Your task to perform on an android device: Search for "amazon basics triple a" on target.com, select the first entry, and add it to the cart. Image 0: 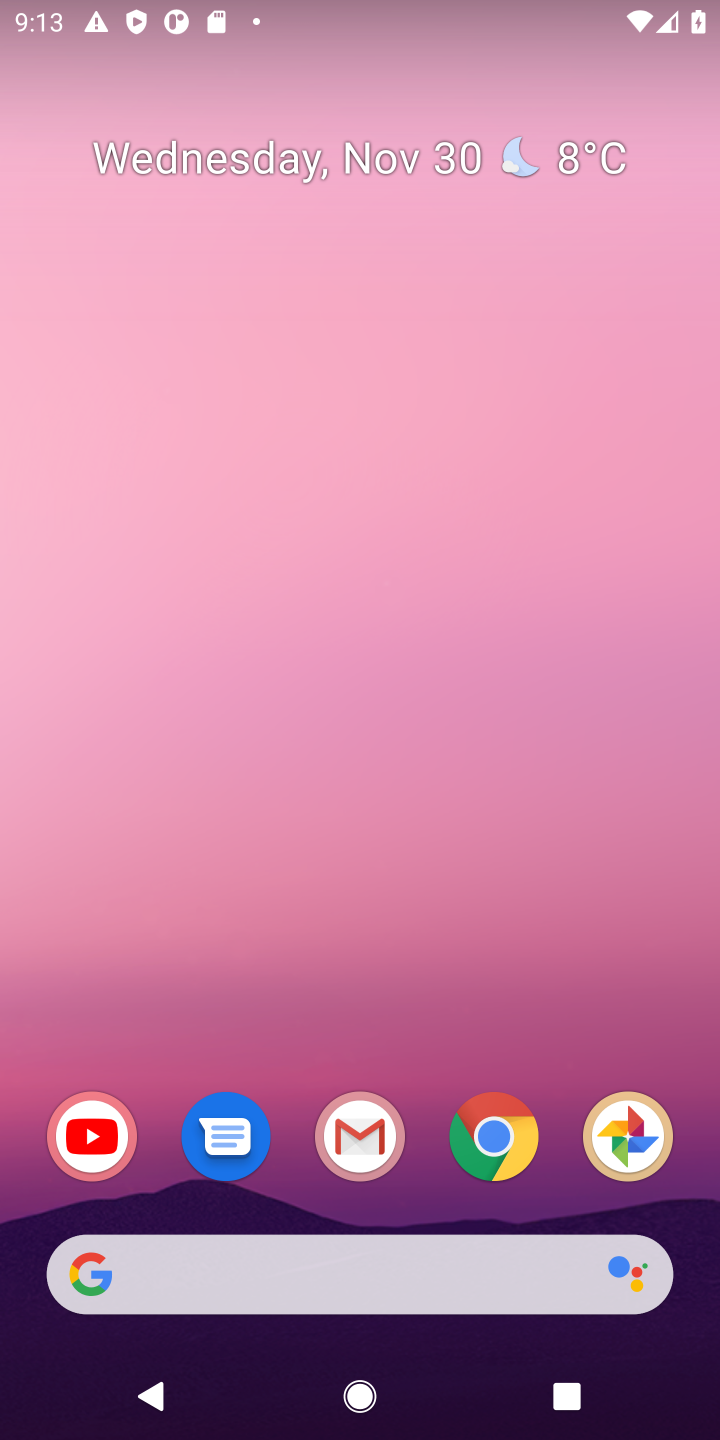
Step 0: click (501, 1143)
Your task to perform on an android device: Search for "amazon basics triple a" on target.com, select the first entry, and add it to the cart. Image 1: 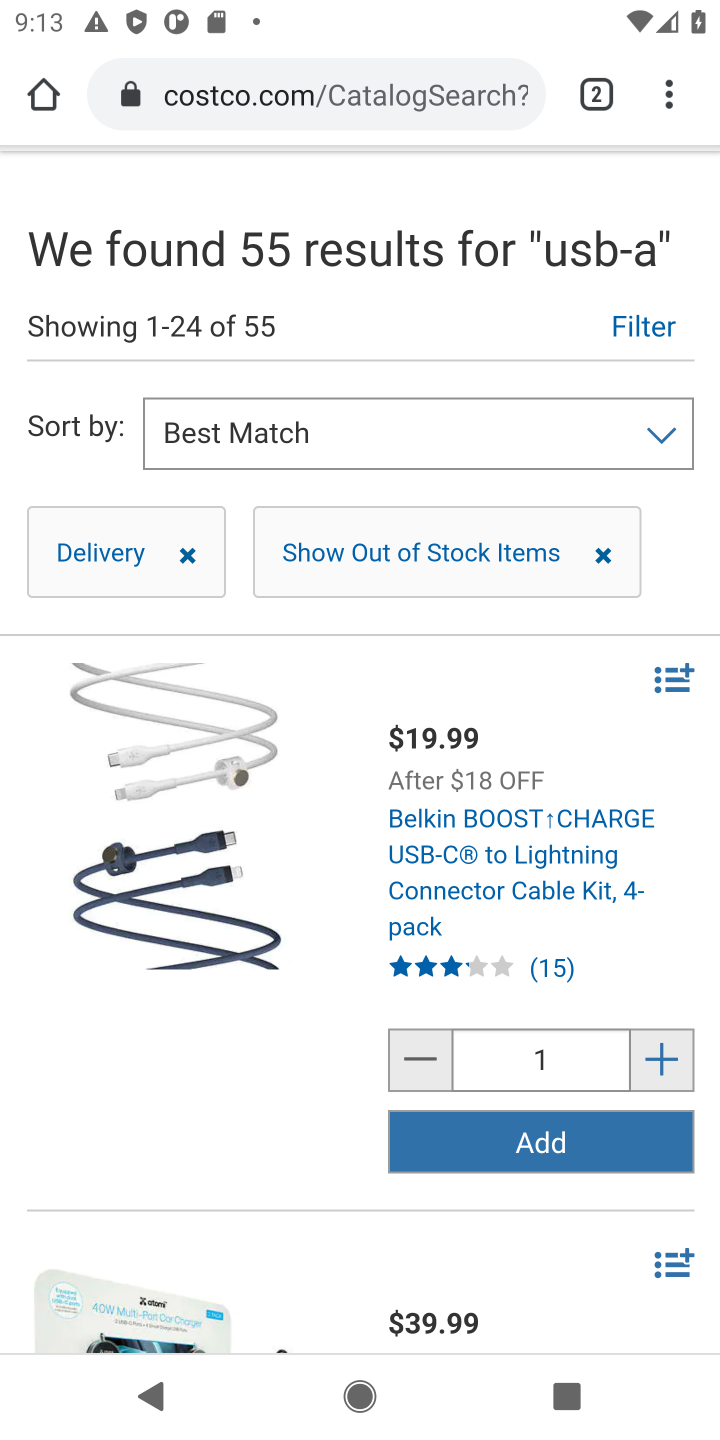
Step 1: click (276, 104)
Your task to perform on an android device: Search for "amazon basics triple a" on target.com, select the first entry, and add it to the cart. Image 2: 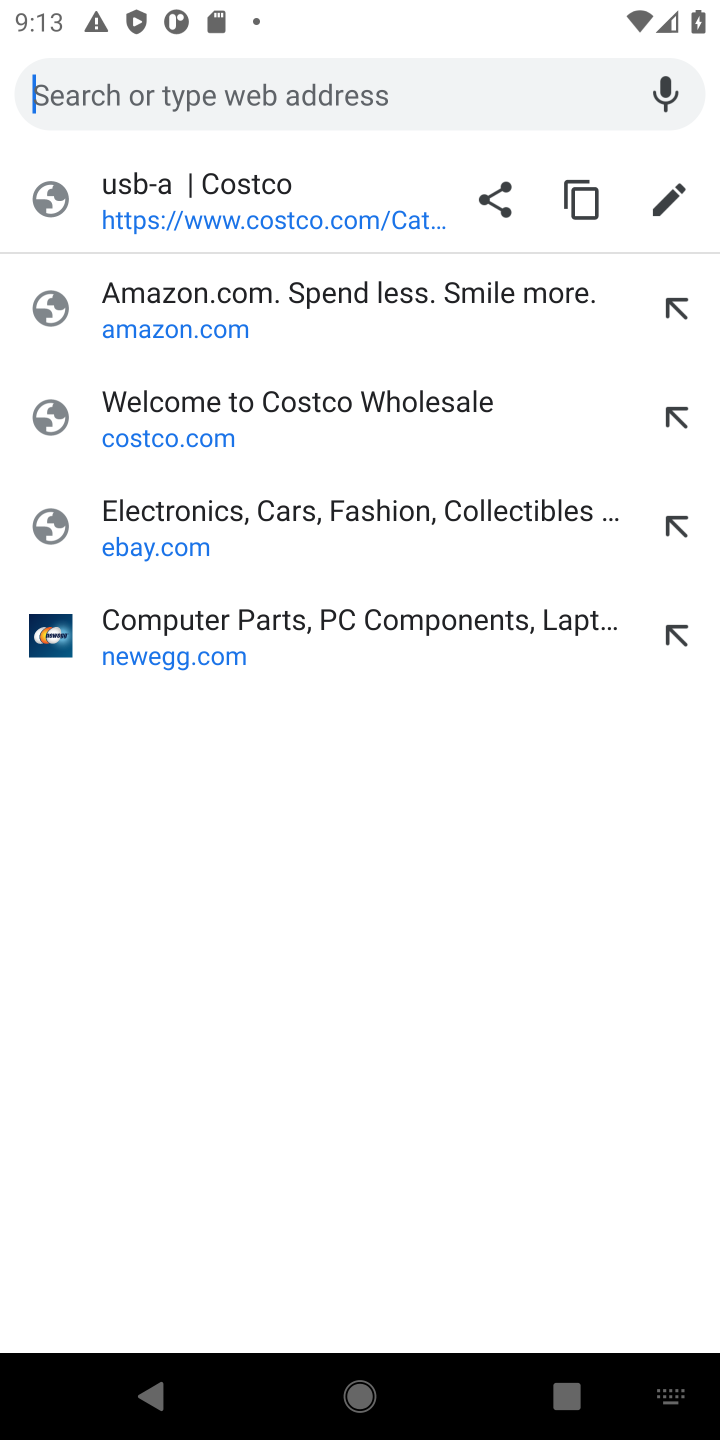
Step 2: type "target.com"
Your task to perform on an android device: Search for "amazon basics triple a" on target.com, select the first entry, and add it to the cart. Image 3: 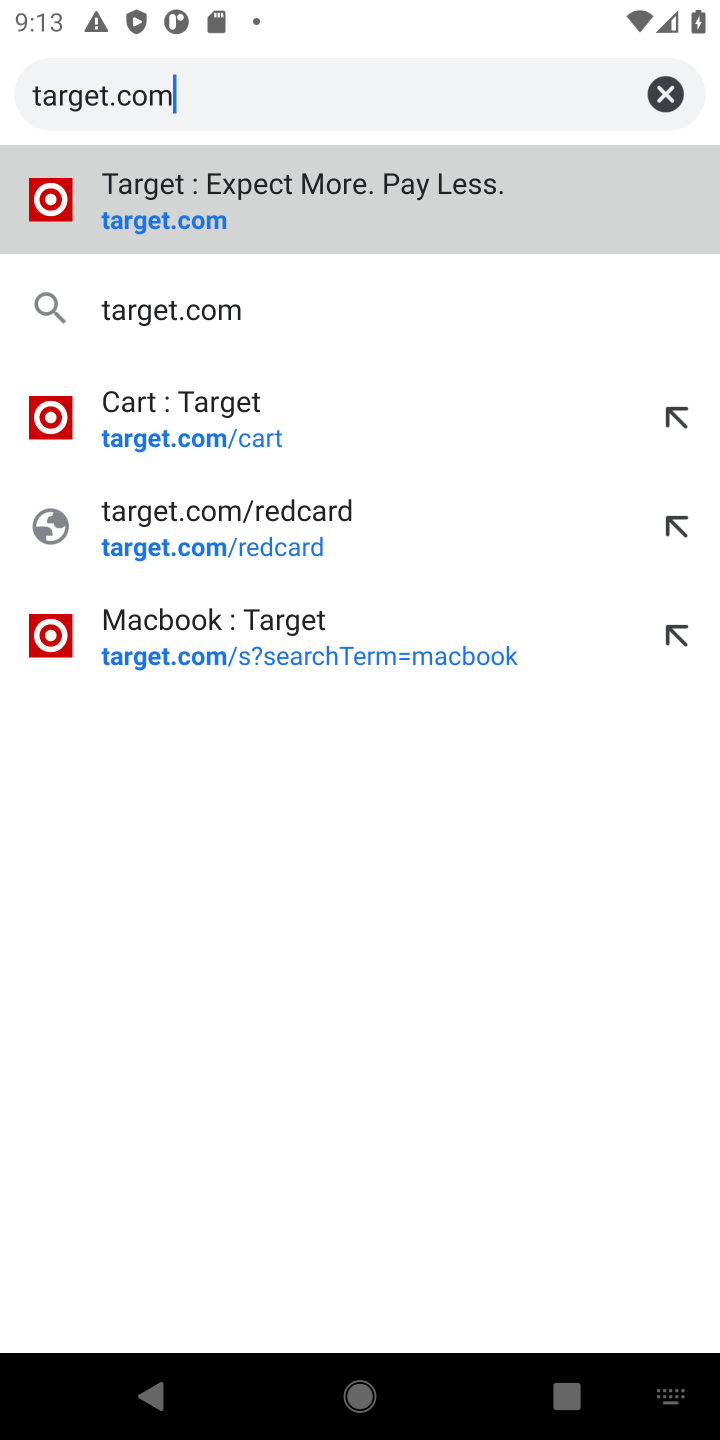
Step 3: click (175, 226)
Your task to perform on an android device: Search for "amazon basics triple a" on target.com, select the first entry, and add it to the cart. Image 4: 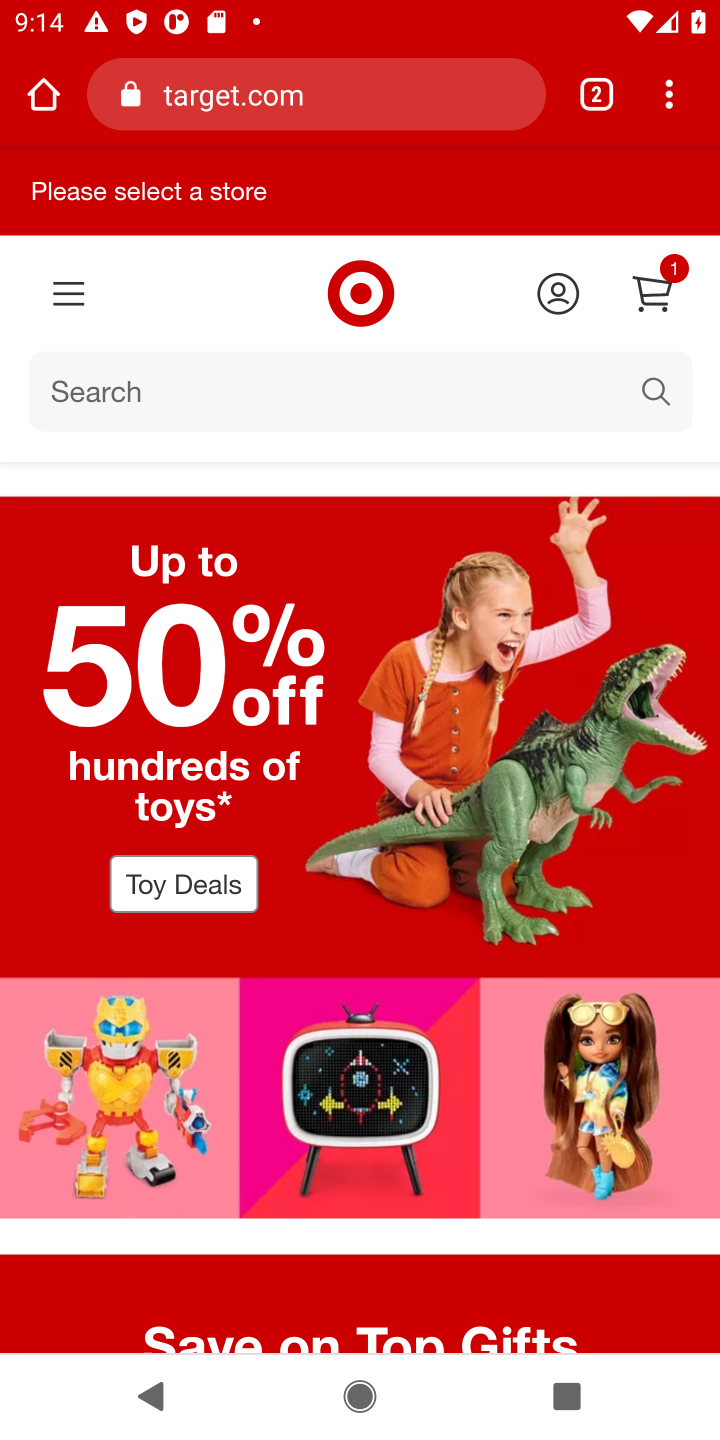
Step 4: click (58, 379)
Your task to perform on an android device: Search for "amazon basics triple a" on target.com, select the first entry, and add it to the cart. Image 5: 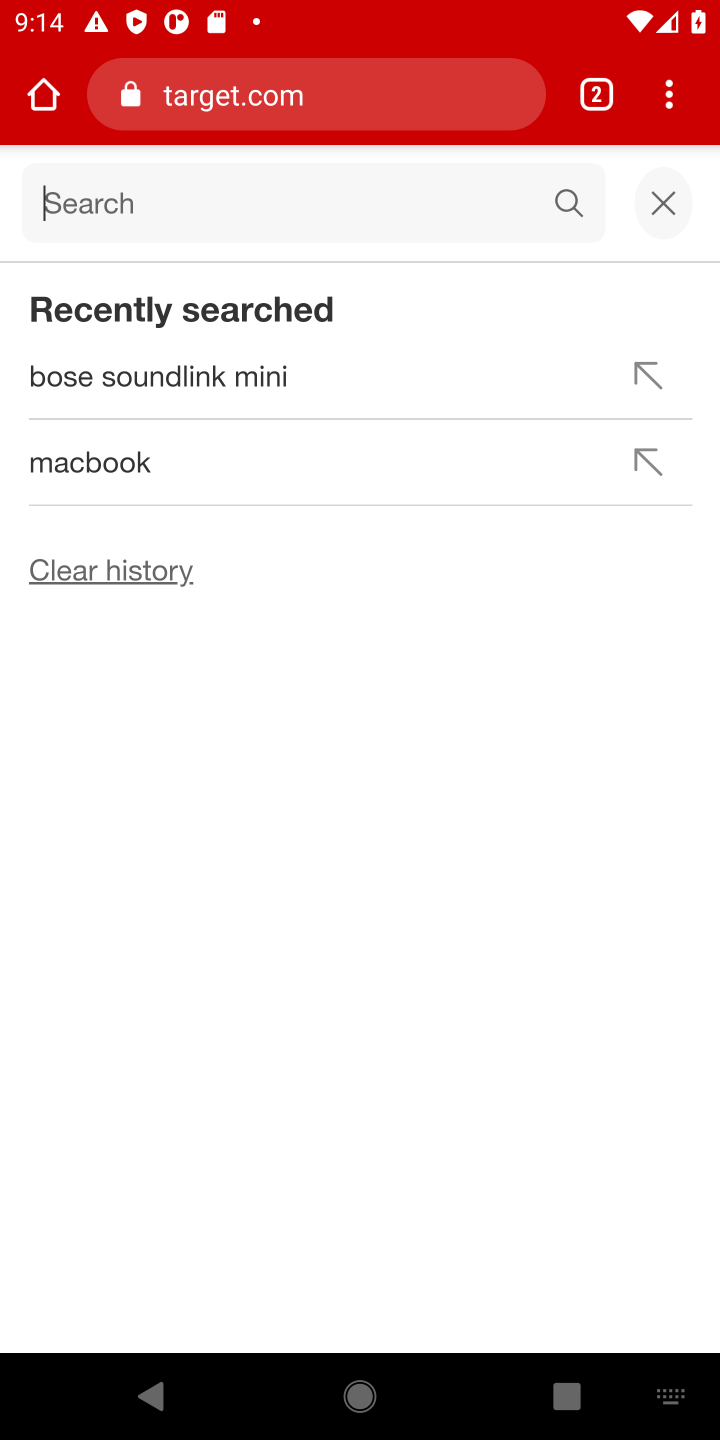
Step 5: type "amazon basics triple a"
Your task to perform on an android device: Search for "amazon basics triple a" on target.com, select the first entry, and add it to the cart. Image 6: 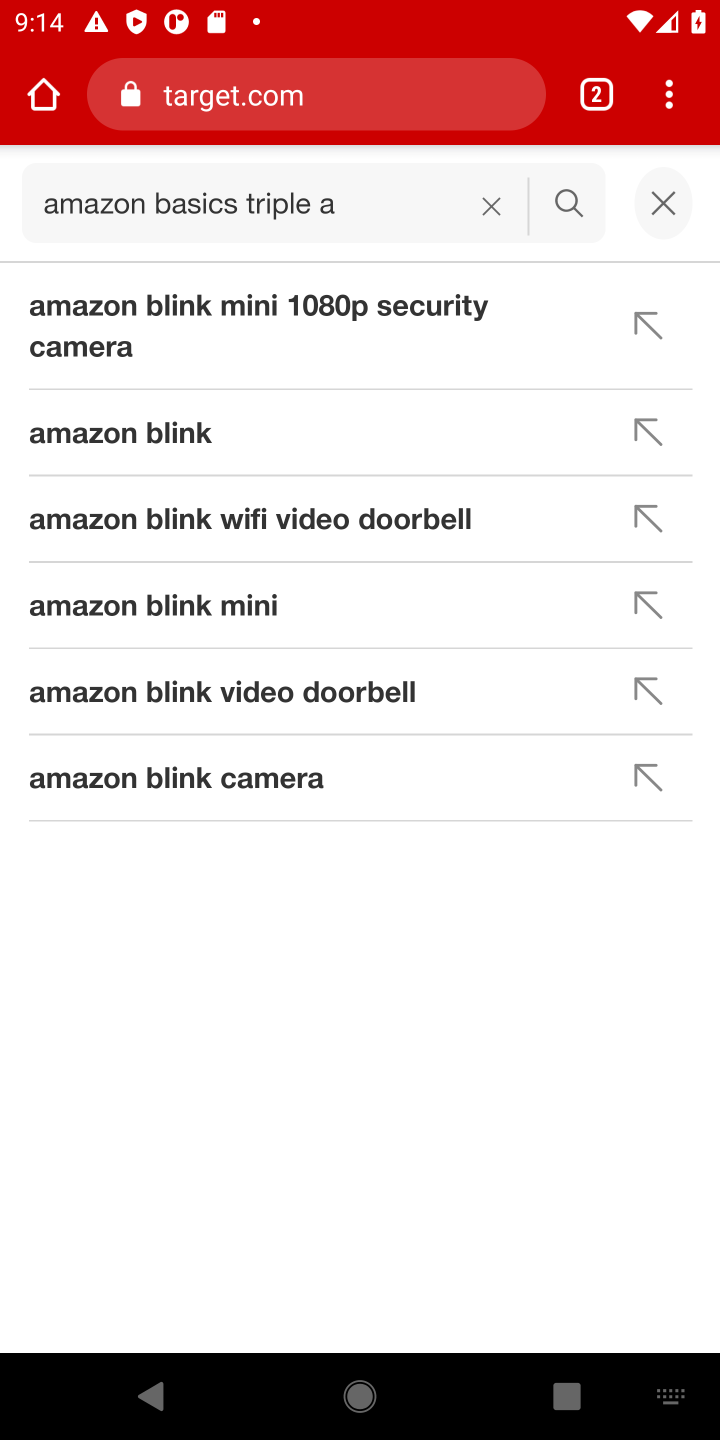
Step 6: click (566, 203)
Your task to perform on an android device: Search for "amazon basics triple a" on target.com, select the first entry, and add it to the cart. Image 7: 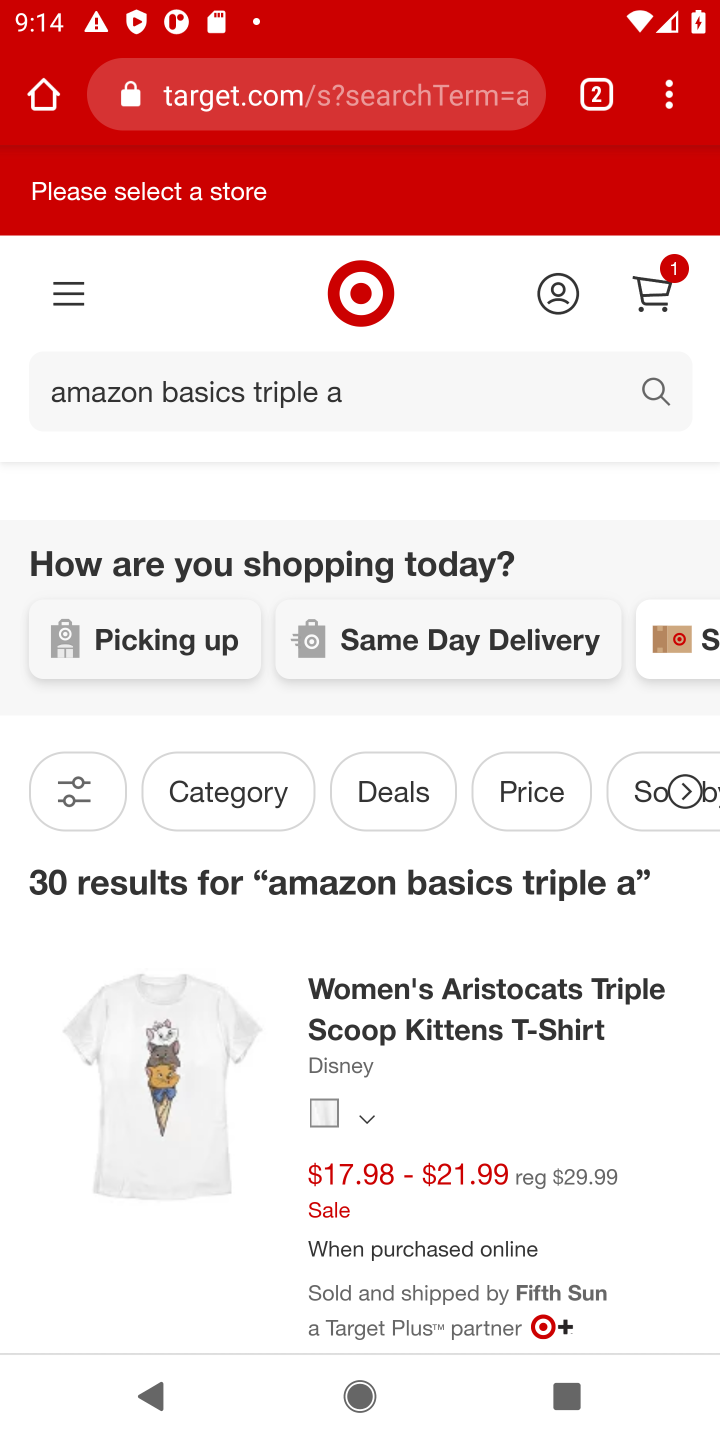
Step 7: task complete